Your task to perform on an android device: see tabs open on other devices in the chrome app Image 0: 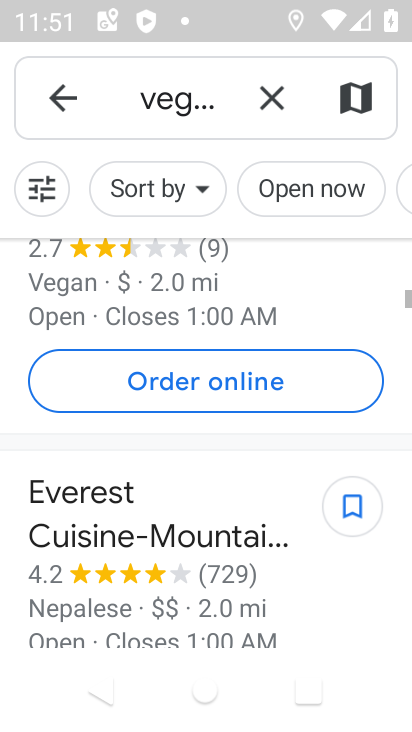
Step 0: press home button
Your task to perform on an android device: see tabs open on other devices in the chrome app Image 1: 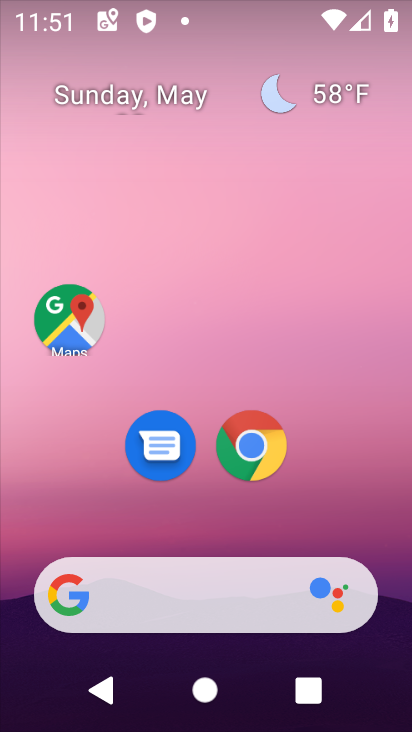
Step 1: click (247, 436)
Your task to perform on an android device: see tabs open on other devices in the chrome app Image 2: 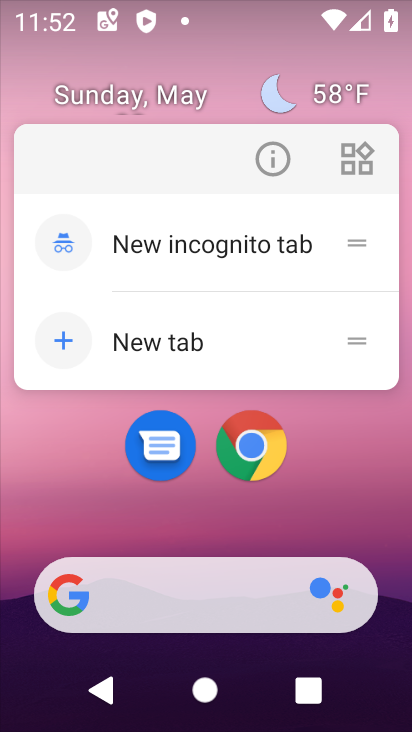
Step 2: click (256, 441)
Your task to perform on an android device: see tabs open on other devices in the chrome app Image 3: 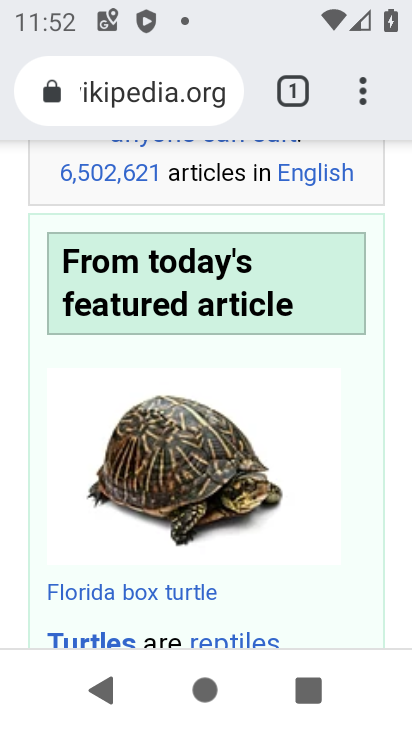
Step 3: click (356, 87)
Your task to perform on an android device: see tabs open on other devices in the chrome app Image 4: 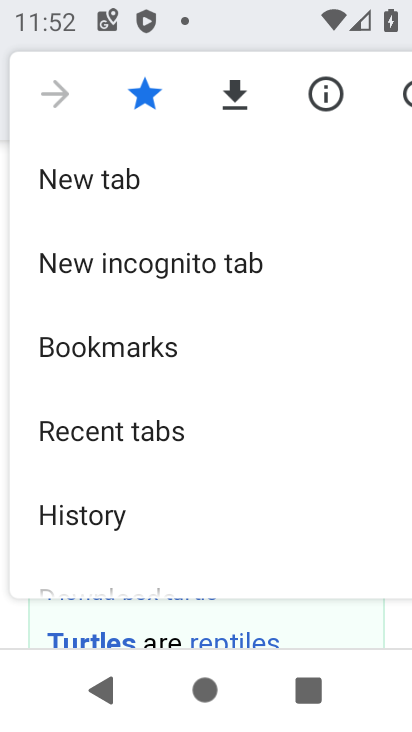
Step 4: click (186, 425)
Your task to perform on an android device: see tabs open on other devices in the chrome app Image 5: 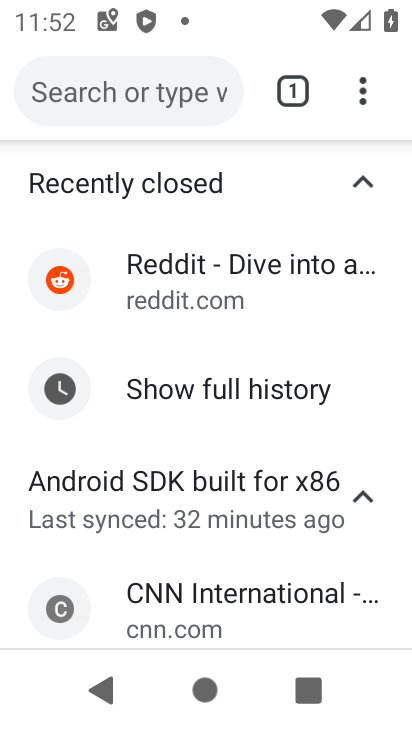
Step 5: task complete